Your task to perform on an android device: Go to network settings Image 0: 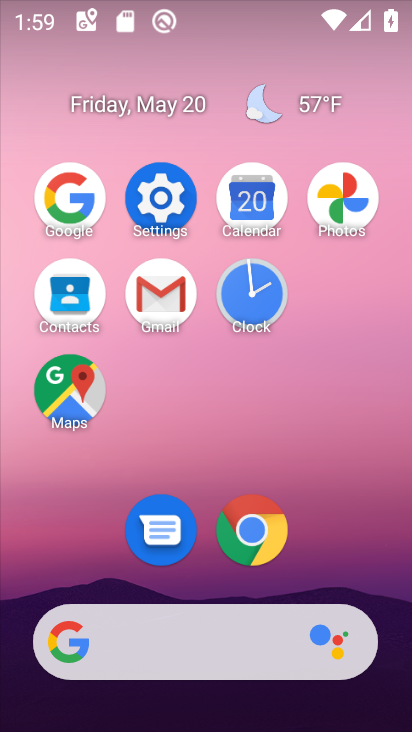
Step 0: click (148, 205)
Your task to perform on an android device: Go to network settings Image 1: 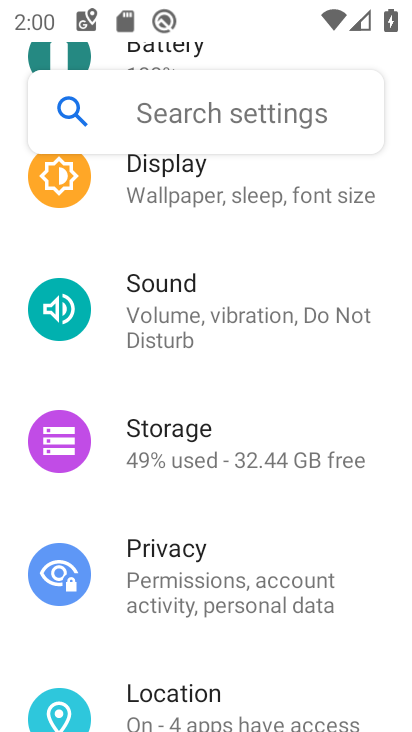
Step 1: drag from (249, 259) to (271, 700)
Your task to perform on an android device: Go to network settings Image 2: 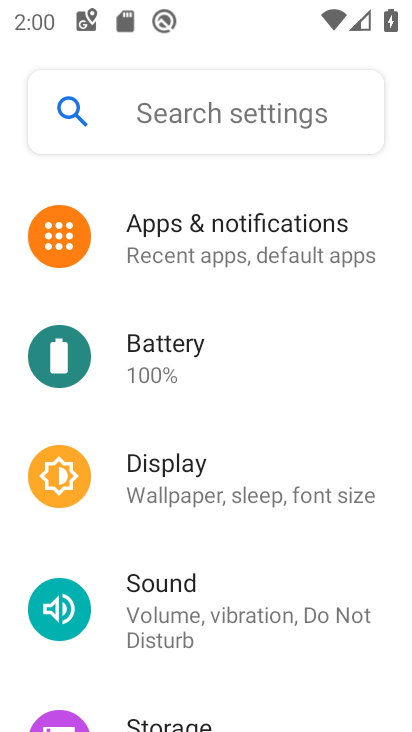
Step 2: drag from (301, 288) to (267, 620)
Your task to perform on an android device: Go to network settings Image 3: 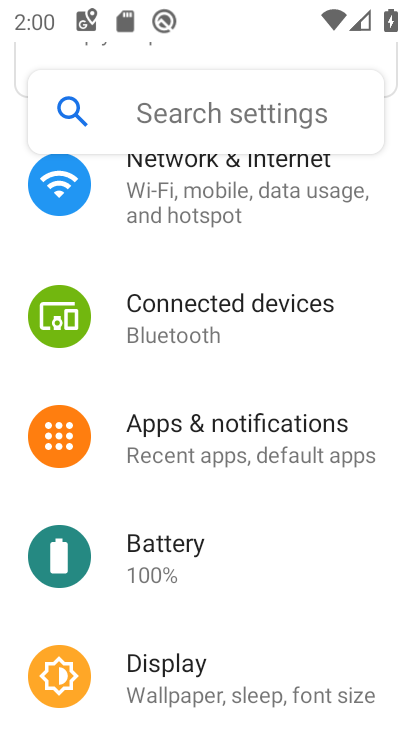
Step 3: drag from (368, 207) to (384, 577)
Your task to perform on an android device: Go to network settings Image 4: 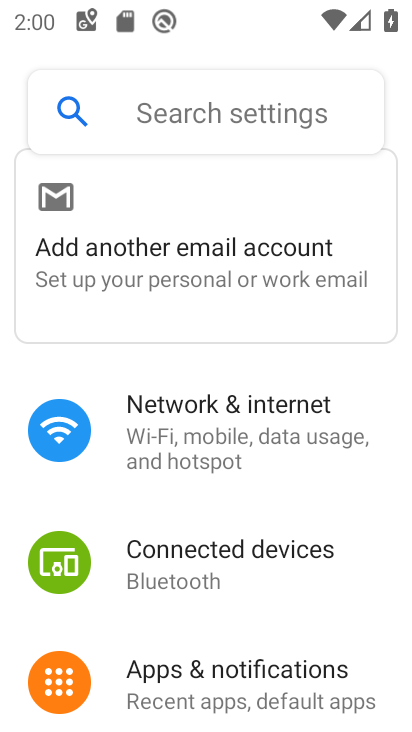
Step 4: click (273, 432)
Your task to perform on an android device: Go to network settings Image 5: 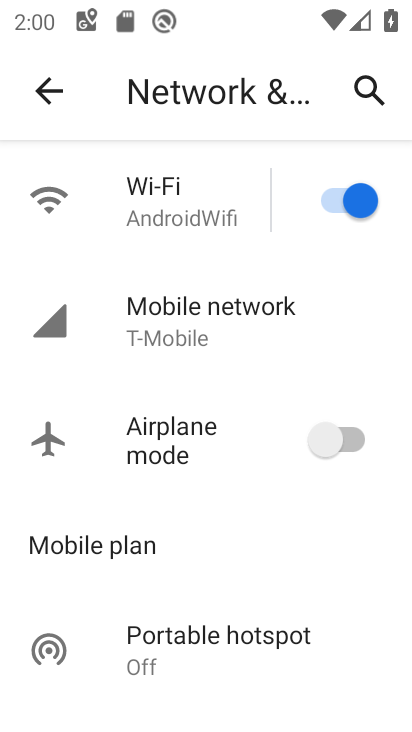
Step 5: task complete